Your task to perform on an android device: star an email in the gmail app Image 0: 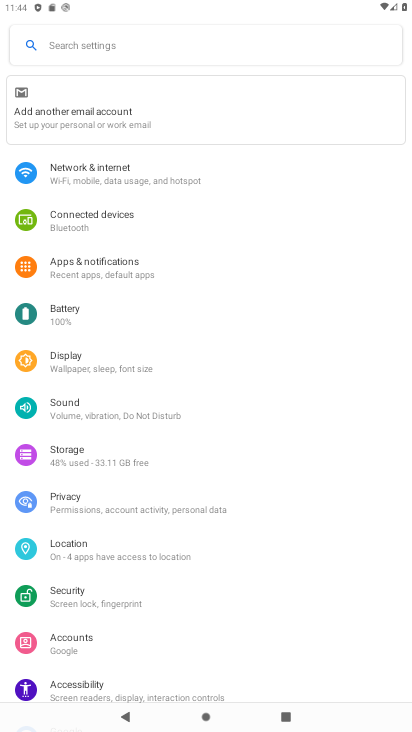
Step 0: press home button
Your task to perform on an android device: star an email in the gmail app Image 1: 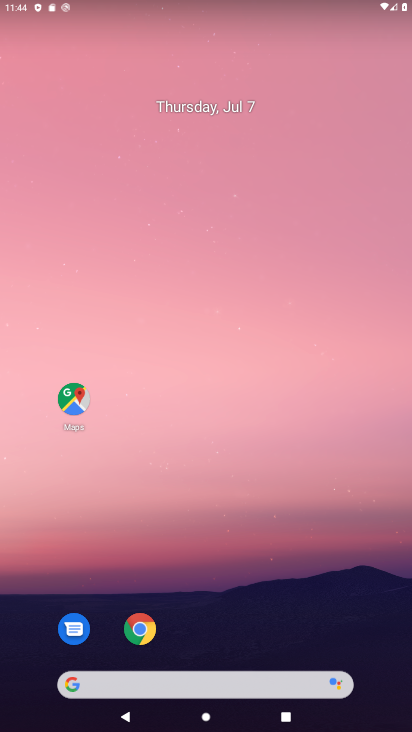
Step 1: drag from (315, 521) to (243, 8)
Your task to perform on an android device: star an email in the gmail app Image 2: 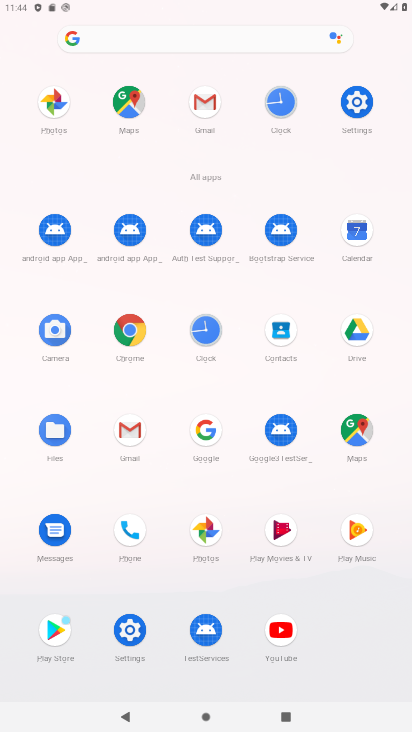
Step 2: click (201, 100)
Your task to perform on an android device: star an email in the gmail app Image 3: 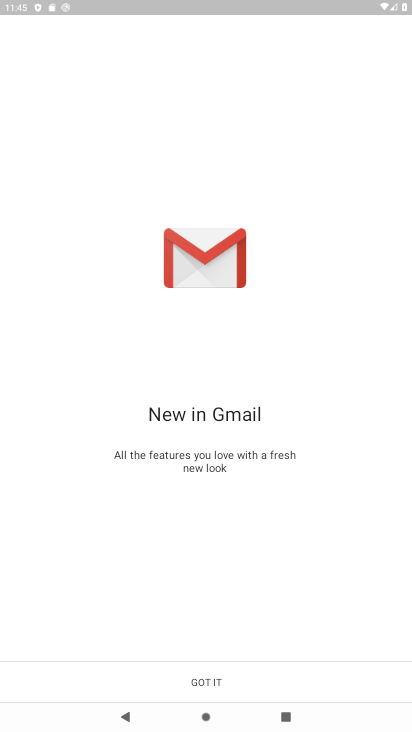
Step 3: click (214, 674)
Your task to perform on an android device: star an email in the gmail app Image 4: 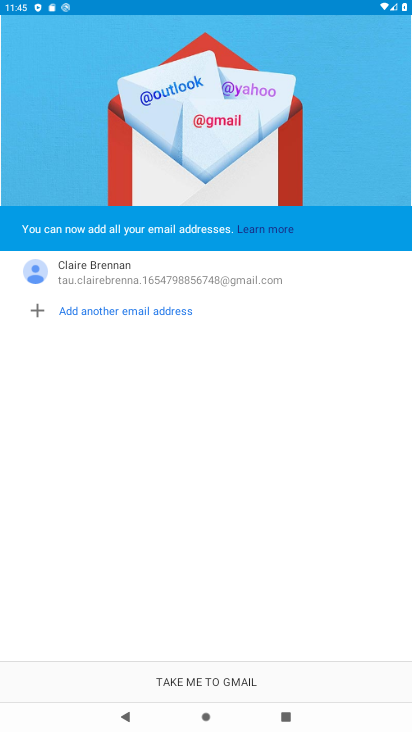
Step 4: click (214, 674)
Your task to perform on an android device: star an email in the gmail app Image 5: 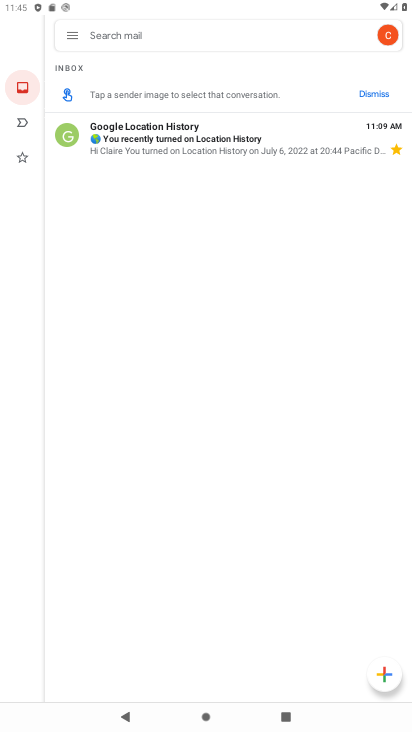
Step 5: click (68, 36)
Your task to perform on an android device: star an email in the gmail app Image 6: 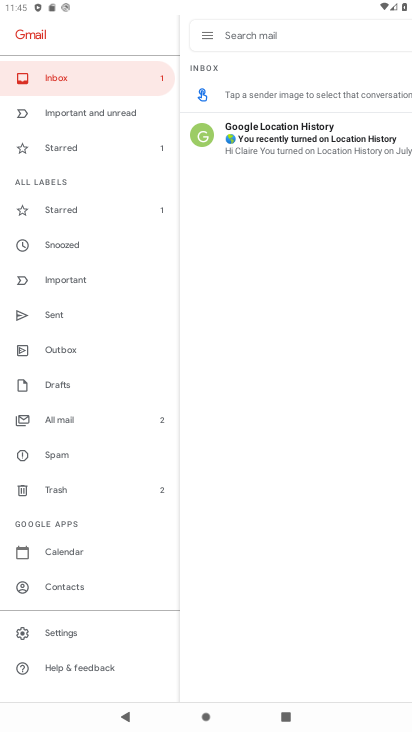
Step 6: click (84, 414)
Your task to perform on an android device: star an email in the gmail app Image 7: 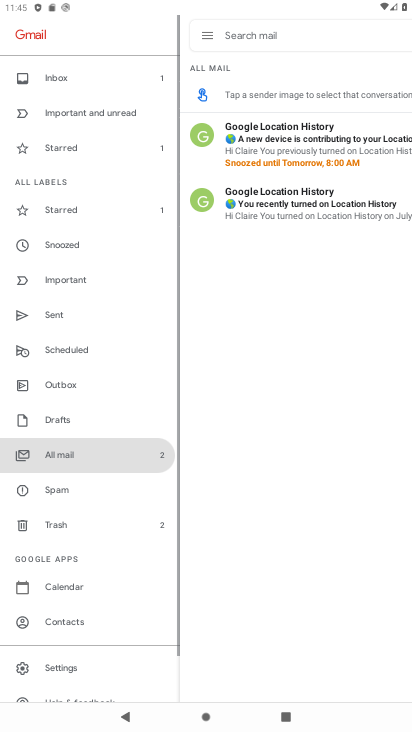
Step 7: click (384, 287)
Your task to perform on an android device: star an email in the gmail app Image 8: 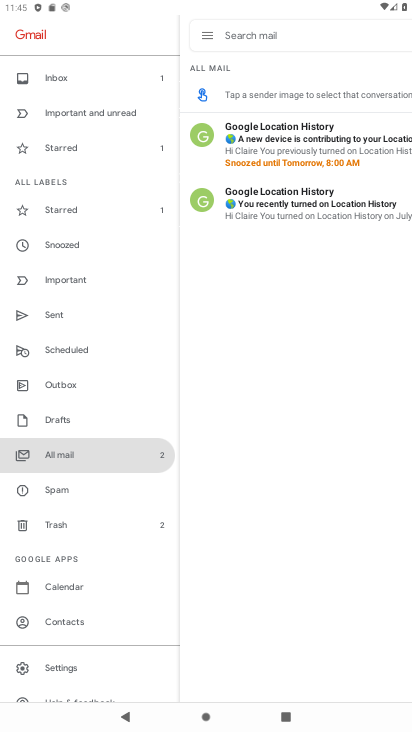
Step 8: drag from (238, 328) to (85, 308)
Your task to perform on an android device: star an email in the gmail app Image 9: 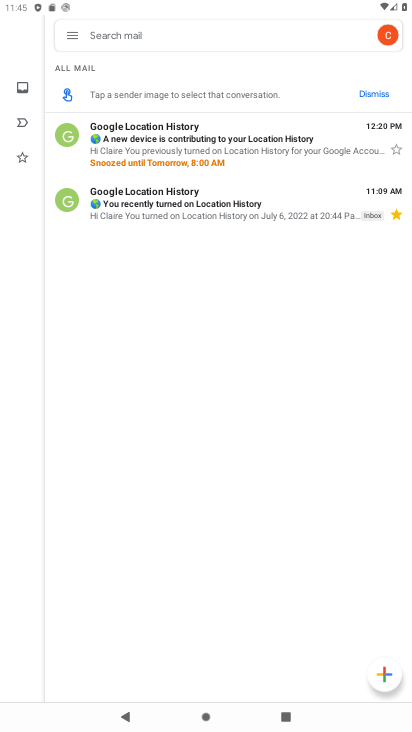
Step 9: click (395, 149)
Your task to perform on an android device: star an email in the gmail app Image 10: 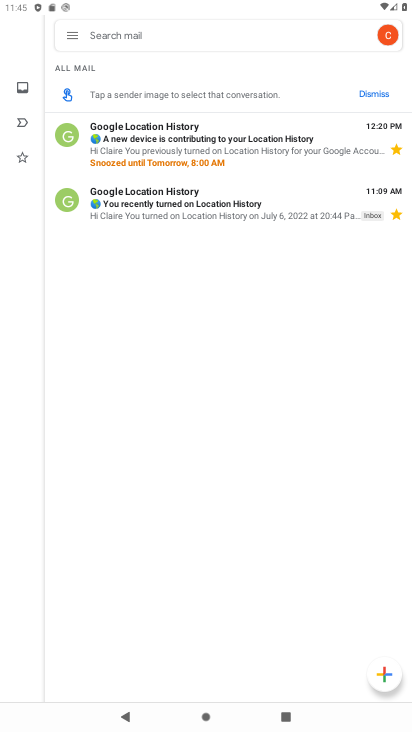
Step 10: task complete